Your task to perform on an android device: install app "ZOOM Cloud Meetings" Image 0: 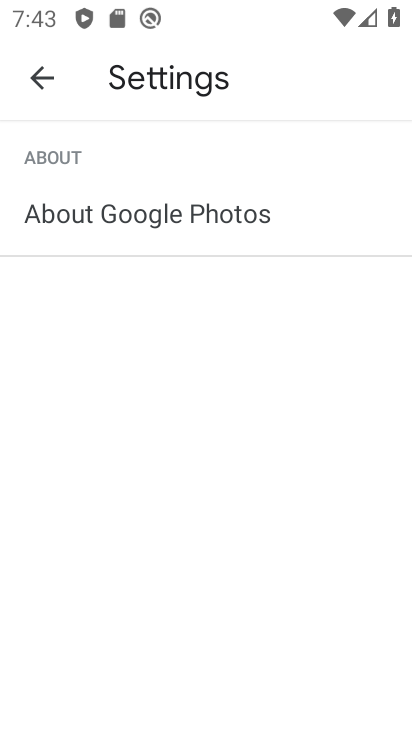
Step 0: press home button
Your task to perform on an android device: install app "ZOOM Cloud Meetings" Image 1: 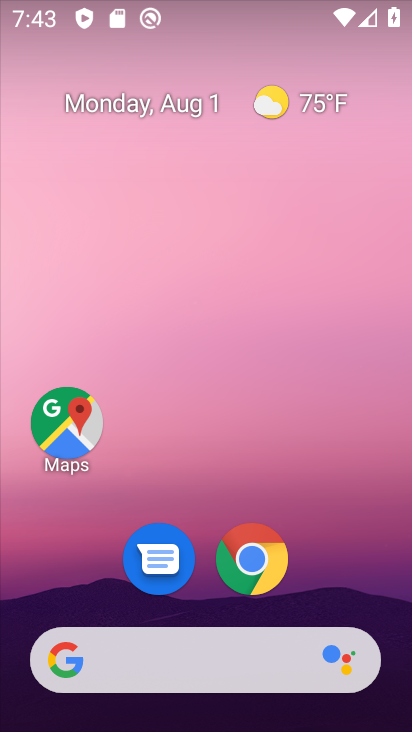
Step 1: drag from (221, 643) to (197, 105)
Your task to perform on an android device: install app "ZOOM Cloud Meetings" Image 2: 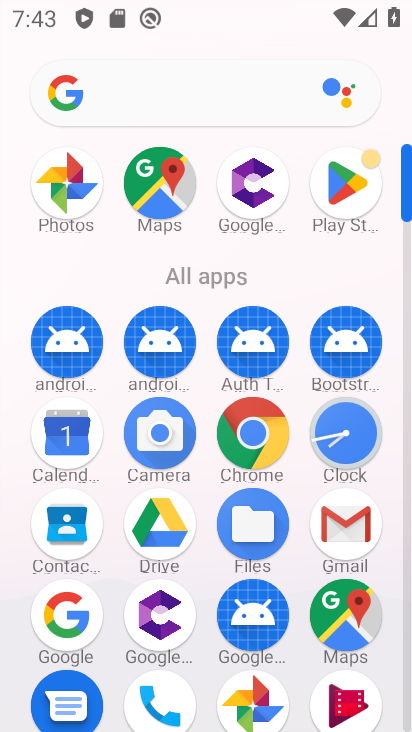
Step 2: click (340, 184)
Your task to perform on an android device: install app "ZOOM Cloud Meetings" Image 3: 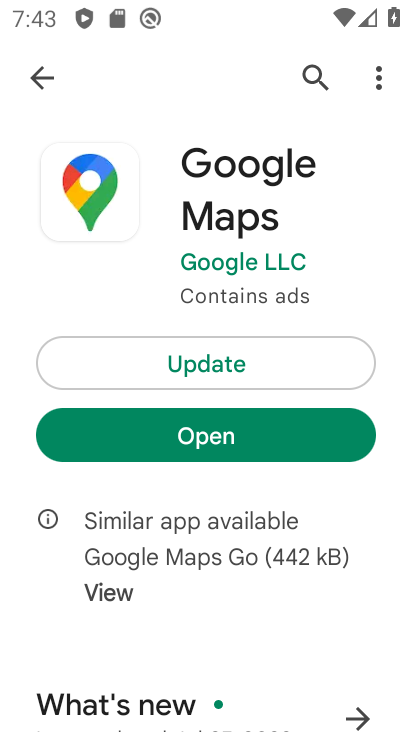
Step 3: click (315, 84)
Your task to perform on an android device: install app "ZOOM Cloud Meetings" Image 4: 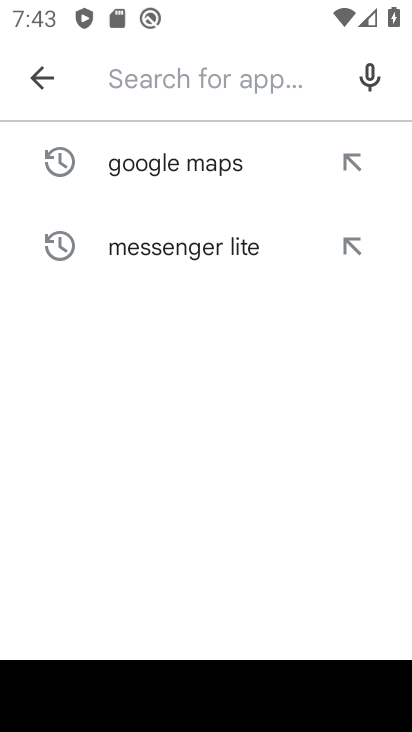
Step 4: type "ZOOM Cloud Meetings"
Your task to perform on an android device: install app "ZOOM Cloud Meetings" Image 5: 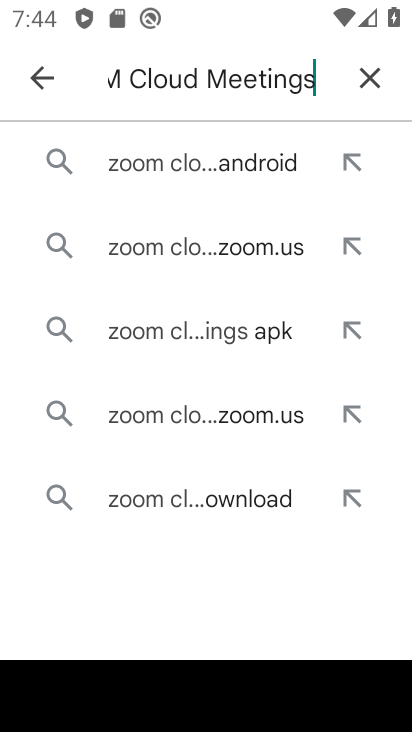
Step 5: click (251, 156)
Your task to perform on an android device: install app "ZOOM Cloud Meetings" Image 6: 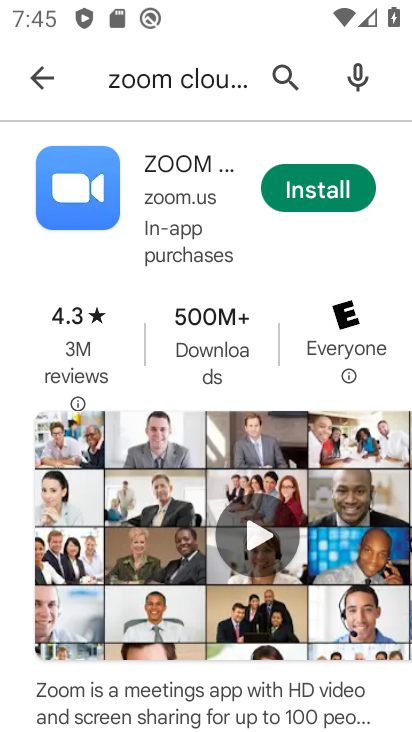
Step 6: click (295, 178)
Your task to perform on an android device: install app "ZOOM Cloud Meetings" Image 7: 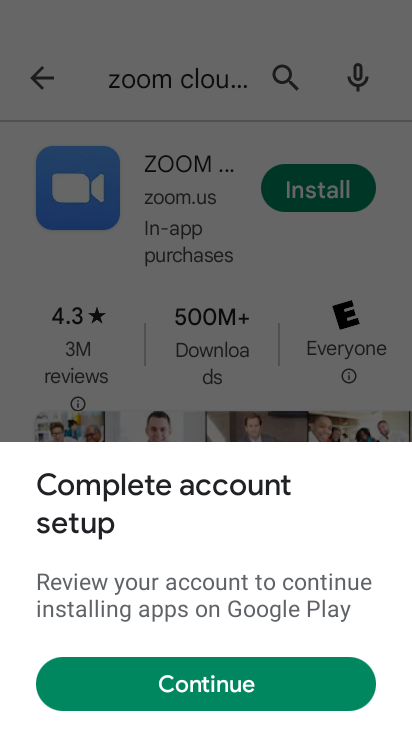
Step 7: click (142, 705)
Your task to perform on an android device: install app "ZOOM Cloud Meetings" Image 8: 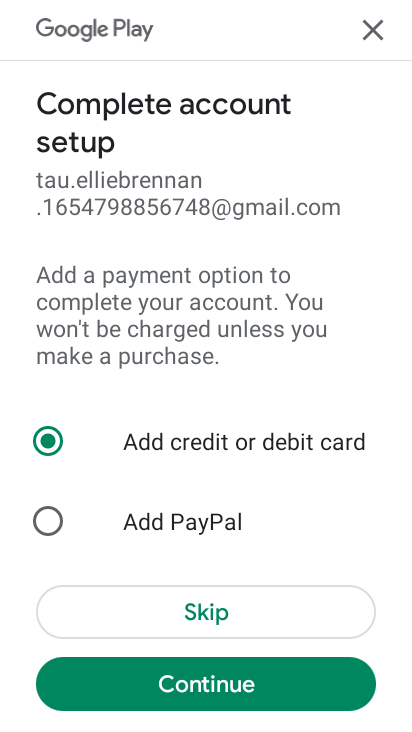
Step 8: click (100, 623)
Your task to perform on an android device: install app "ZOOM Cloud Meetings" Image 9: 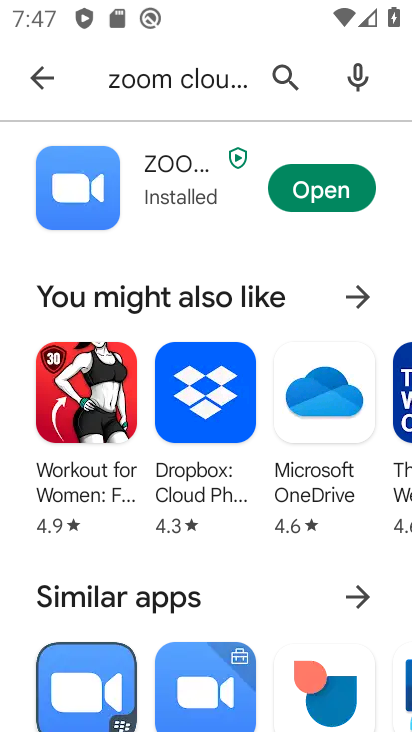
Step 9: task complete